Your task to perform on an android device: Clear all items from cart on ebay. Add "apple airpods" to the cart on ebay Image 0: 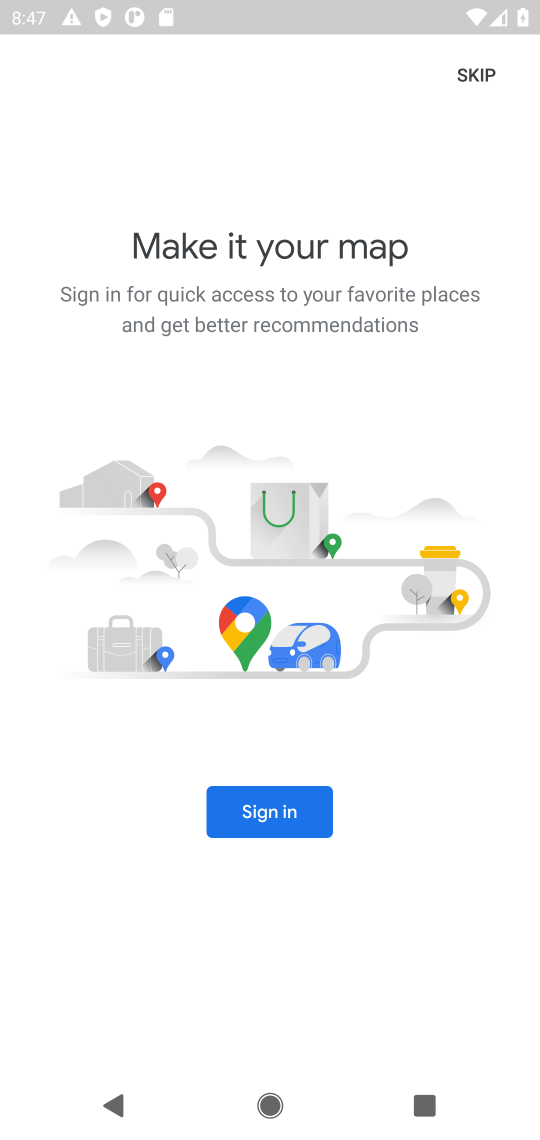
Step 0: press home button
Your task to perform on an android device: Clear all items from cart on ebay. Add "apple airpods" to the cart on ebay Image 1: 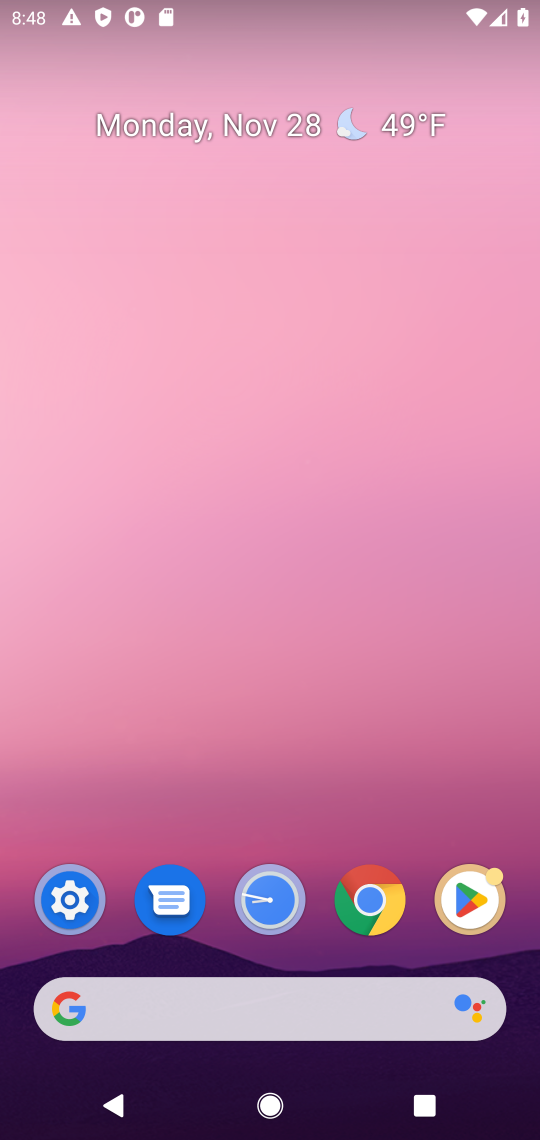
Step 1: click (325, 1009)
Your task to perform on an android device: Clear all items from cart on ebay. Add "apple airpods" to the cart on ebay Image 2: 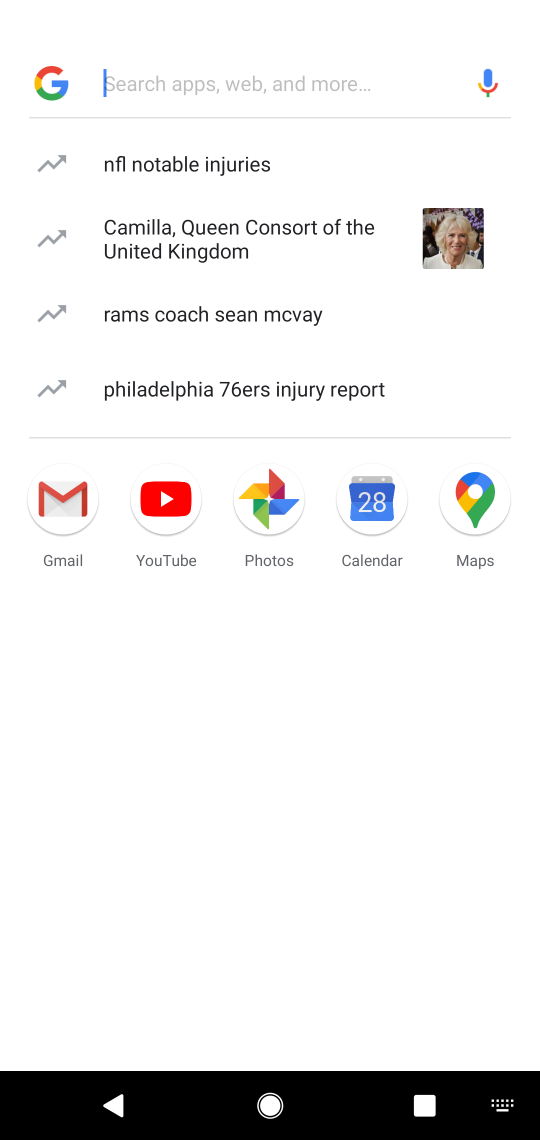
Step 2: type "ebay.com"
Your task to perform on an android device: Clear all items from cart on ebay. Add "apple airpods" to the cart on ebay Image 3: 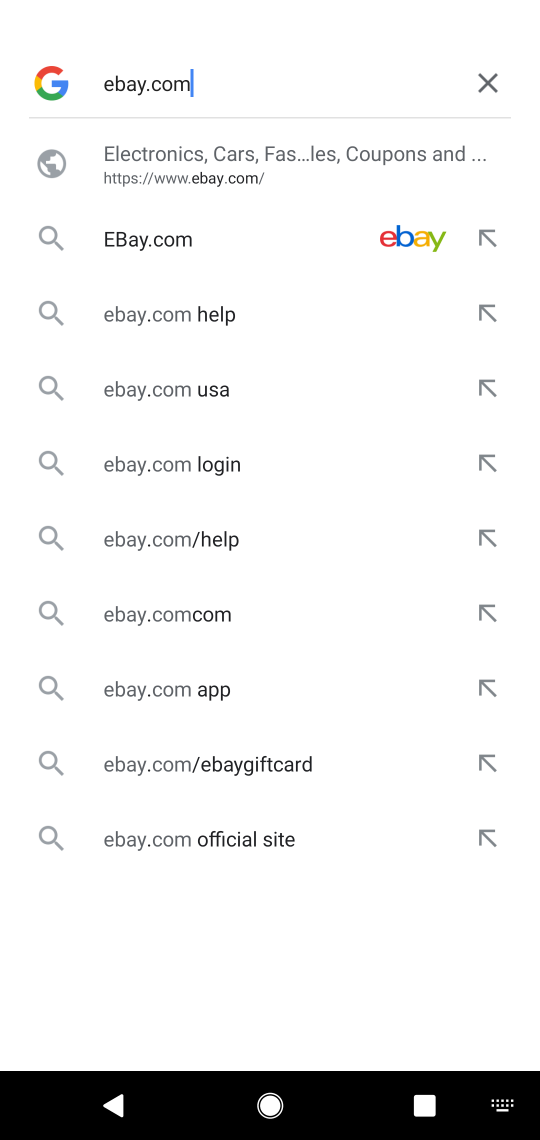
Step 3: click (213, 150)
Your task to perform on an android device: Clear all items from cart on ebay. Add "apple airpods" to the cart on ebay Image 4: 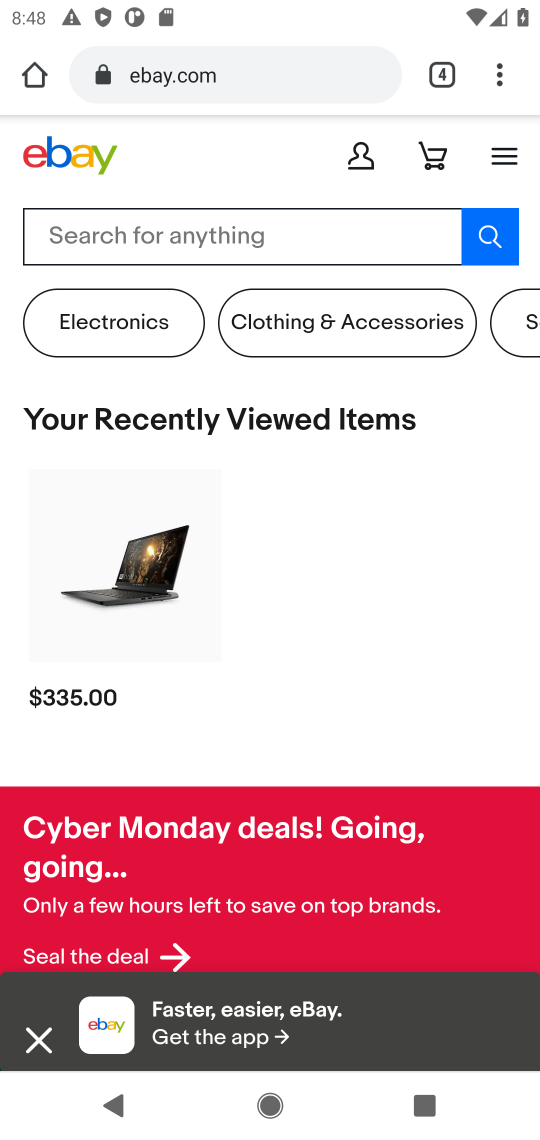
Step 4: click (140, 243)
Your task to perform on an android device: Clear all items from cart on ebay. Add "apple airpods" to the cart on ebay Image 5: 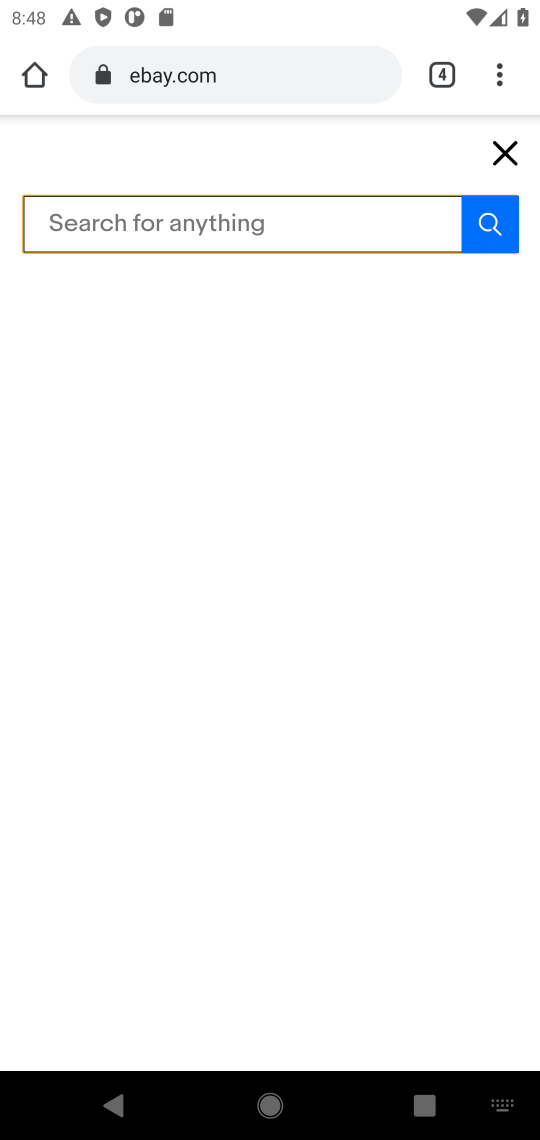
Step 5: type "apple airpod"
Your task to perform on an android device: Clear all items from cart on ebay. Add "apple airpods" to the cart on ebay Image 6: 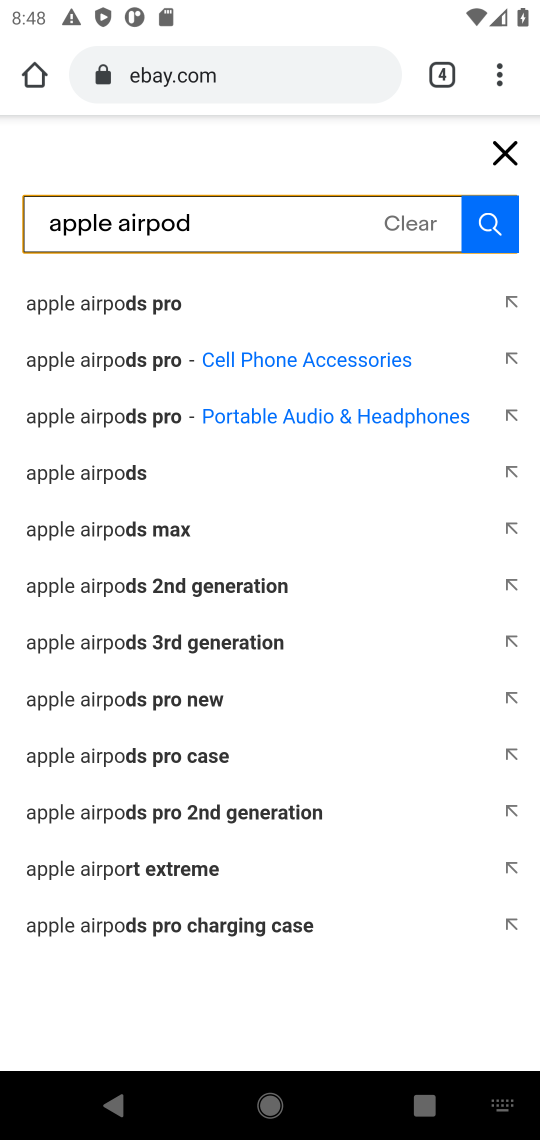
Step 6: click (142, 300)
Your task to perform on an android device: Clear all items from cart on ebay. Add "apple airpods" to the cart on ebay Image 7: 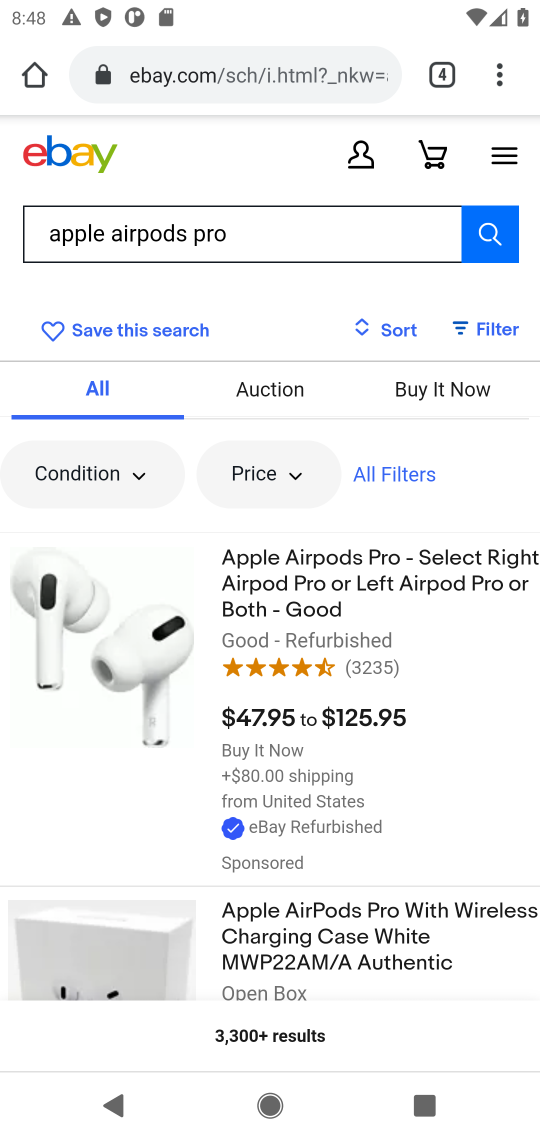
Step 7: click (249, 573)
Your task to perform on an android device: Clear all items from cart on ebay. Add "apple airpods" to the cart on ebay Image 8: 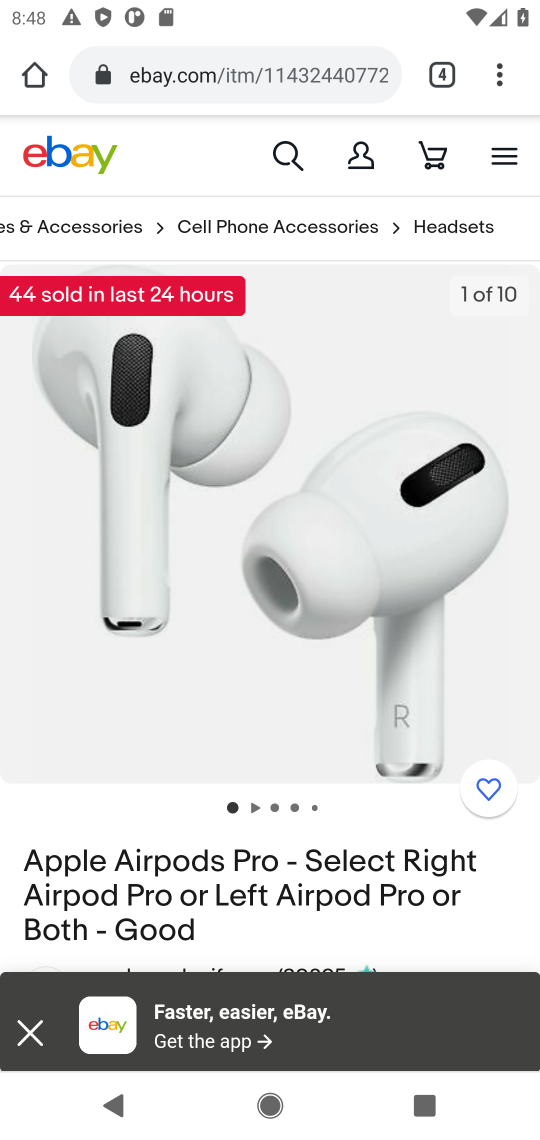
Step 8: task complete